Your task to perform on an android device: toggle wifi Image 0: 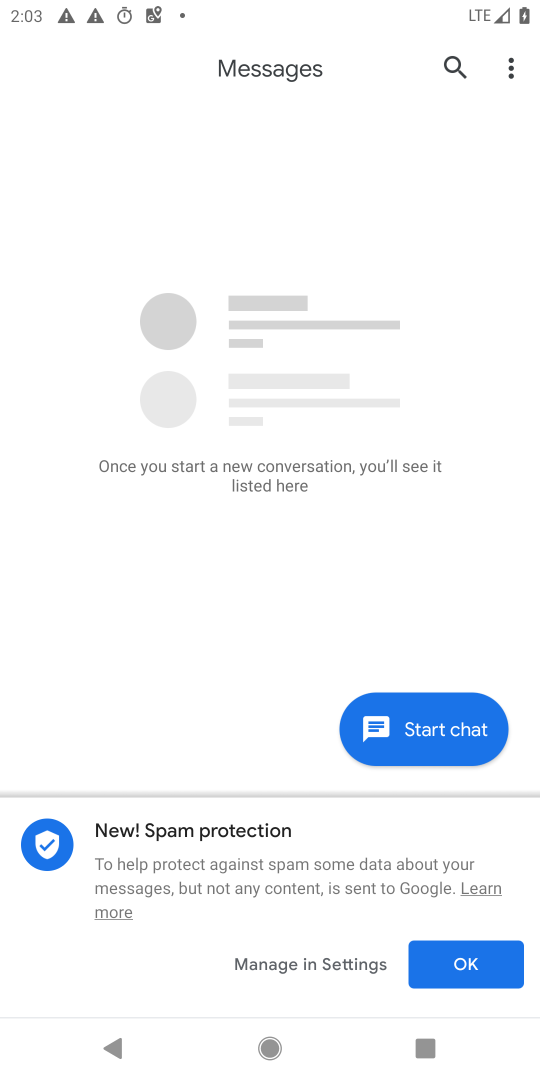
Step 0: press home button
Your task to perform on an android device: toggle wifi Image 1: 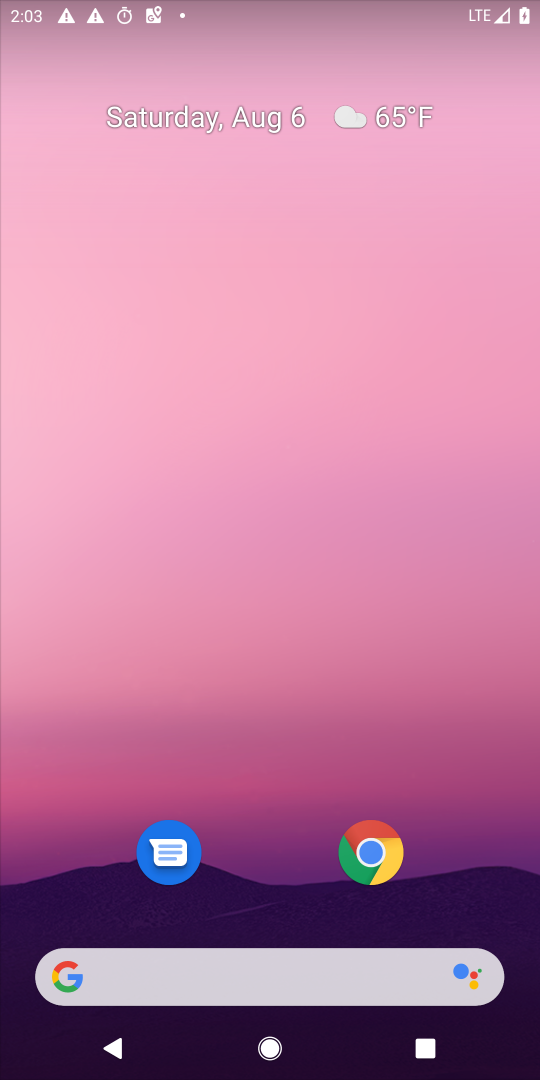
Step 1: drag from (325, 1000) to (302, 512)
Your task to perform on an android device: toggle wifi Image 2: 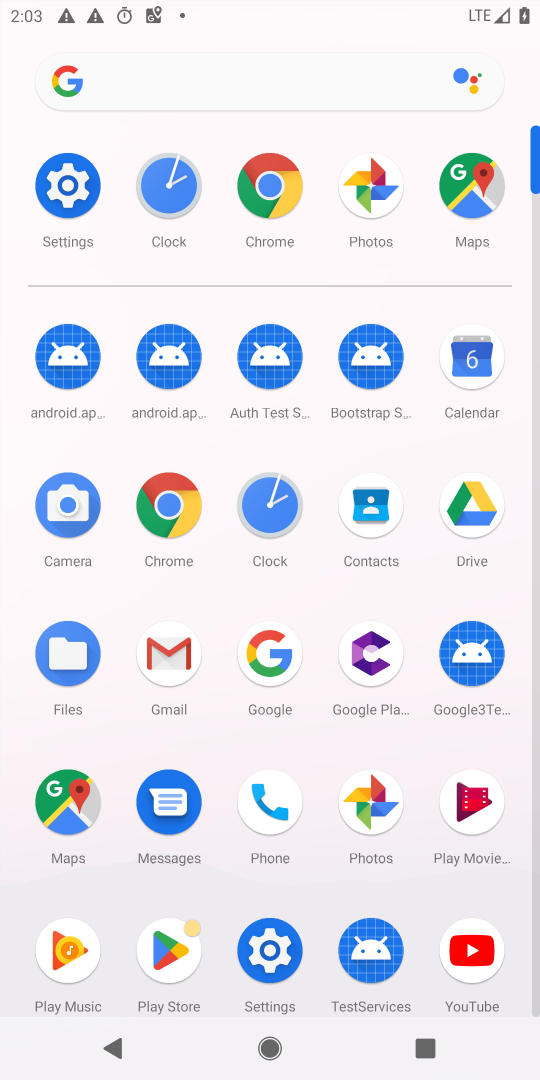
Step 2: click (78, 189)
Your task to perform on an android device: toggle wifi Image 3: 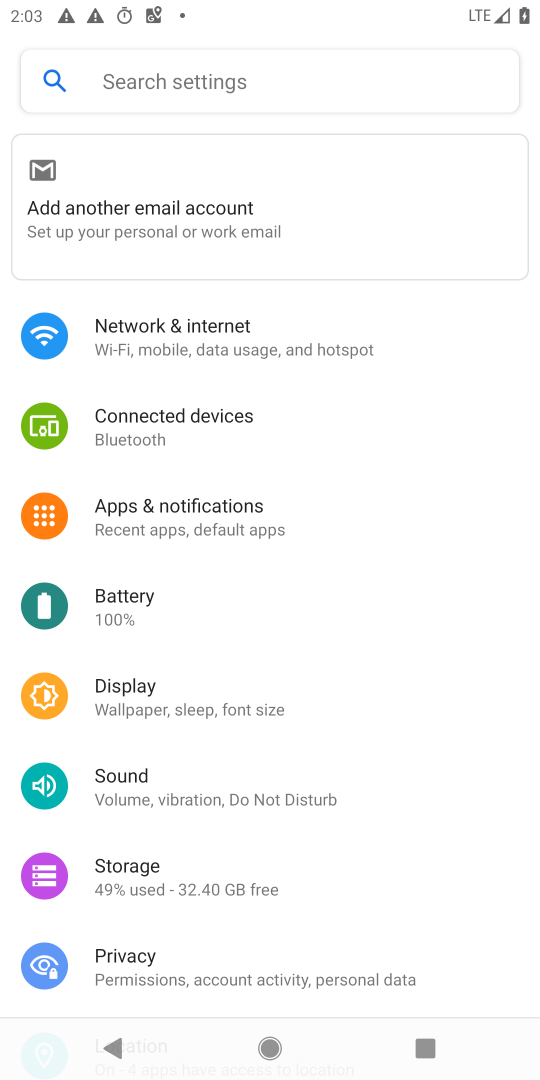
Step 3: click (215, 342)
Your task to perform on an android device: toggle wifi Image 4: 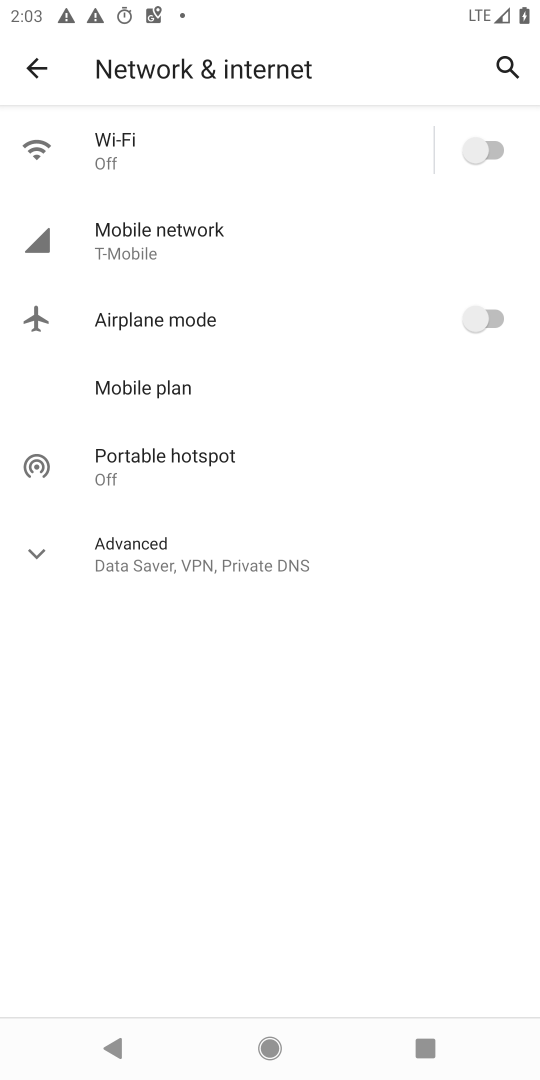
Step 4: click (179, 145)
Your task to perform on an android device: toggle wifi Image 5: 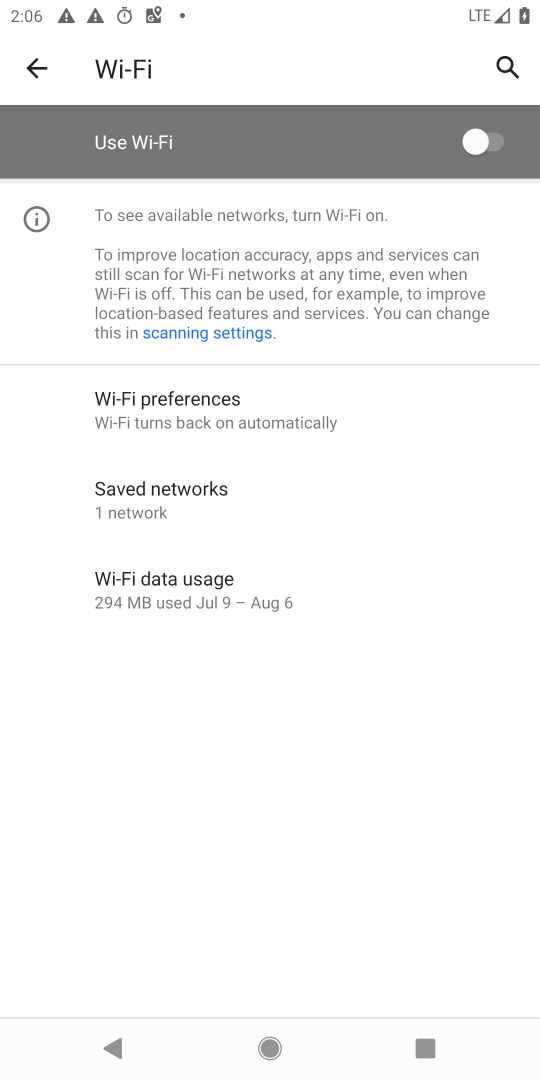
Step 5: task complete